Your task to perform on an android device: What is the capital of France? Image 0: 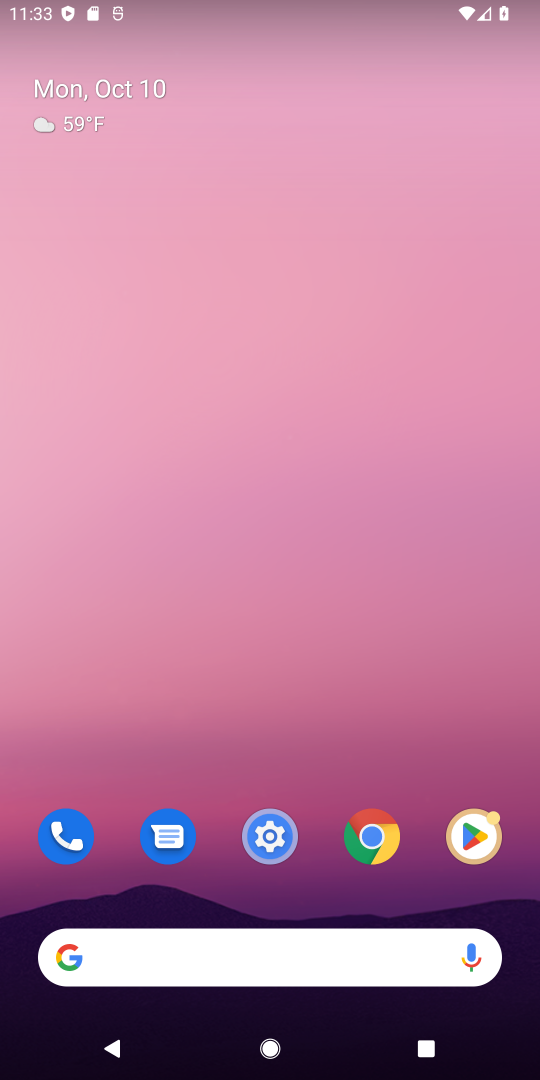
Step 0: click (387, 829)
Your task to perform on an android device: What is the capital of France? Image 1: 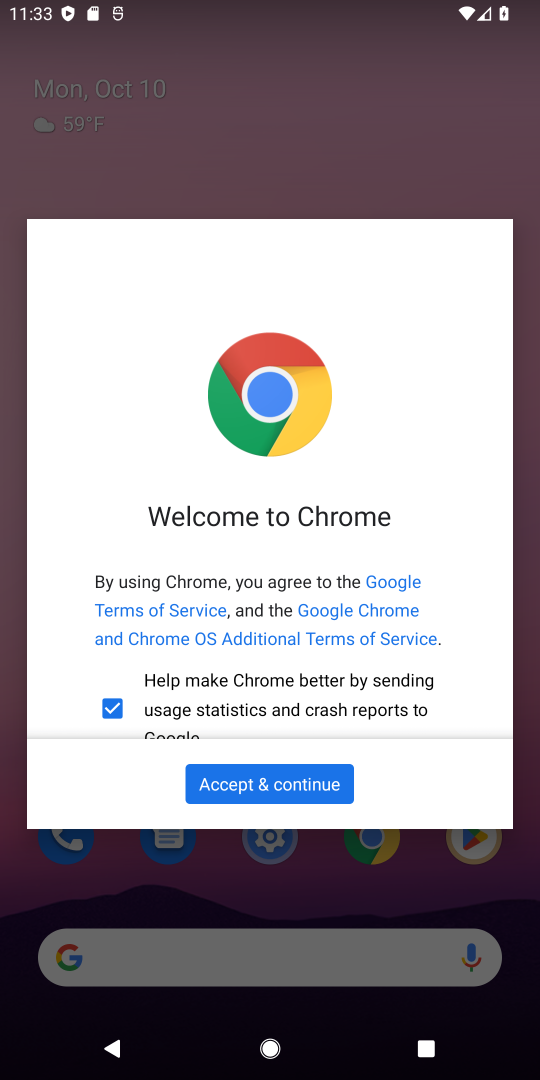
Step 1: click (285, 789)
Your task to perform on an android device: What is the capital of France? Image 2: 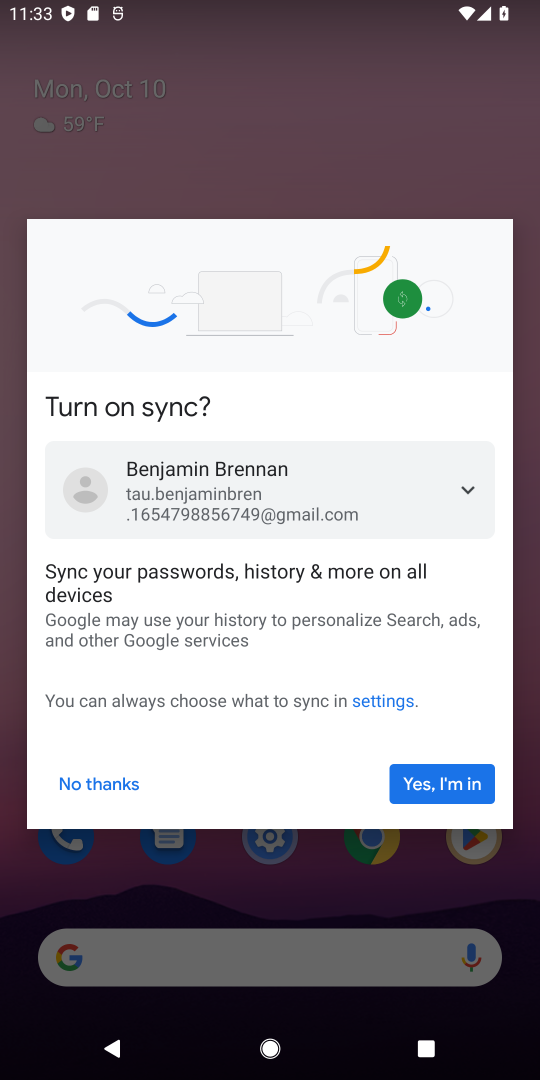
Step 2: click (464, 795)
Your task to perform on an android device: What is the capital of France? Image 3: 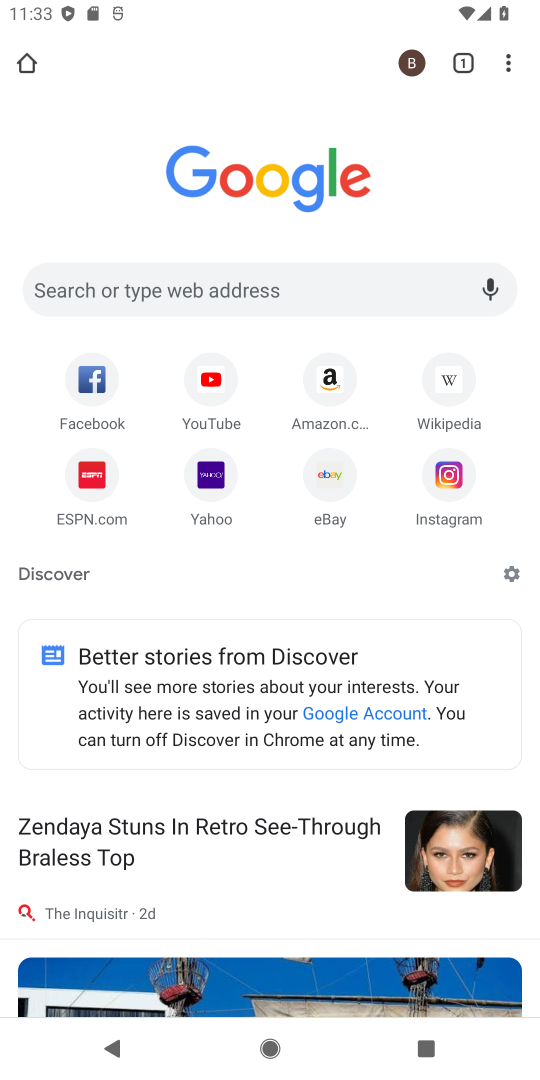
Step 3: click (268, 274)
Your task to perform on an android device: What is the capital of France? Image 4: 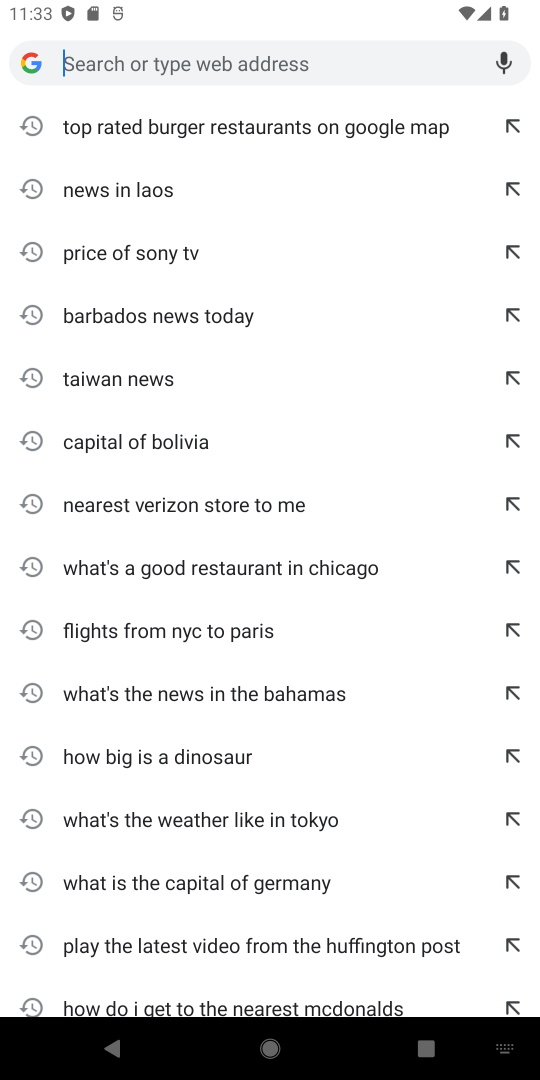
Step 4: type "france capital"
Your task to perform on an android device: What is the capital of France? Image 5: 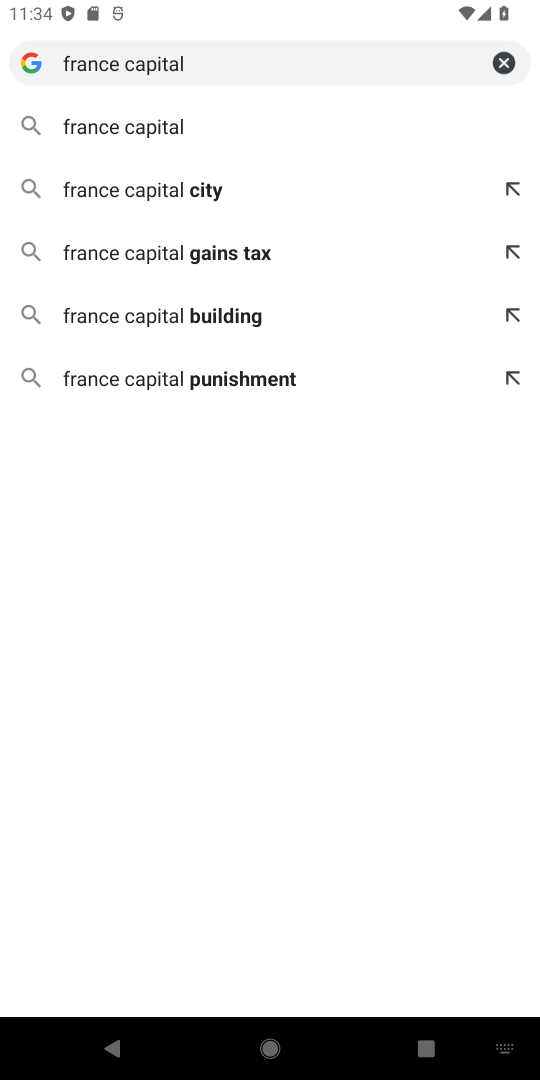
Step 5: click (159, 117)
Your task to perform on an android device: What is the capital of France? Image 6: 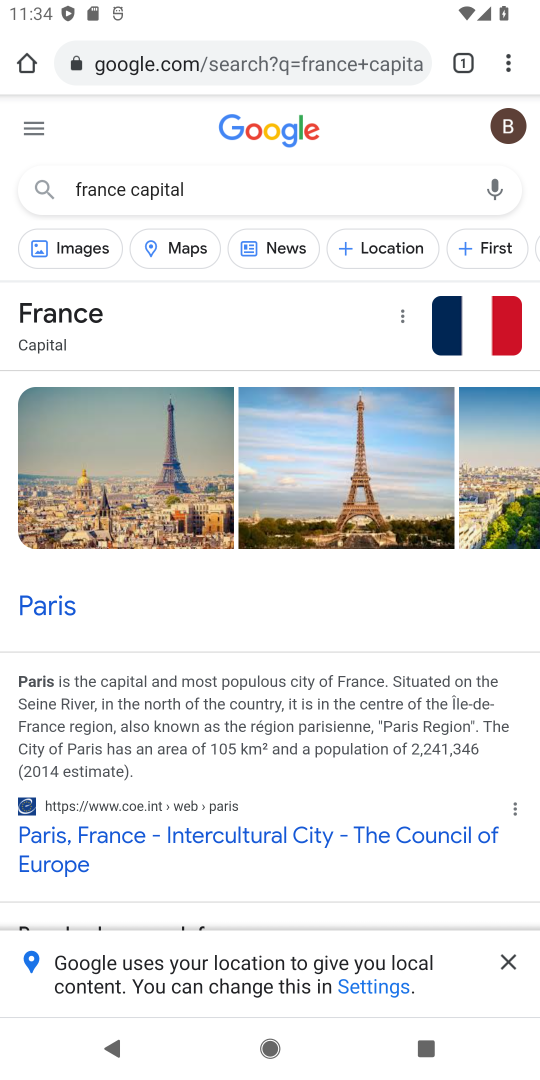
Step 6: task complete